Your task to perform on an android device: Open ESPN.com Image 0: 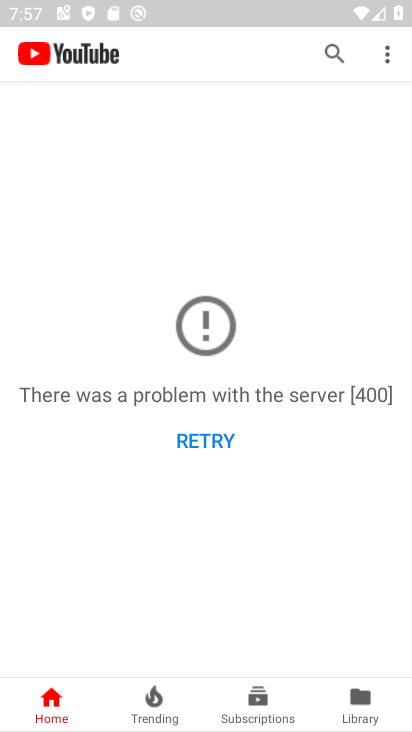
Step 0: press home button
Your task to perform on an android device: Open ESPN.com Image 1: 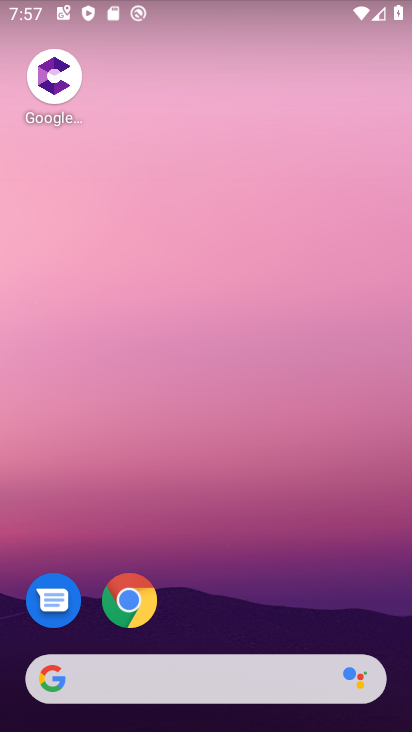
Step 1: click (118, 605)
Your task to perform on an android device: Open ESPN.com Image 2: 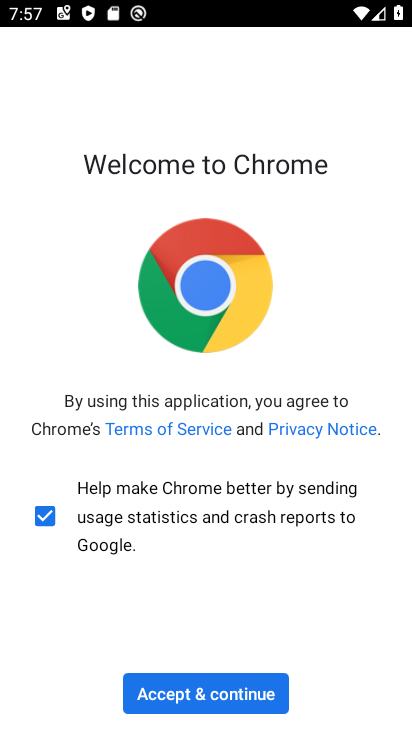
Step 2: click (197, 673)
Your task to perform on an android device: Open ESPN.com Image 3: 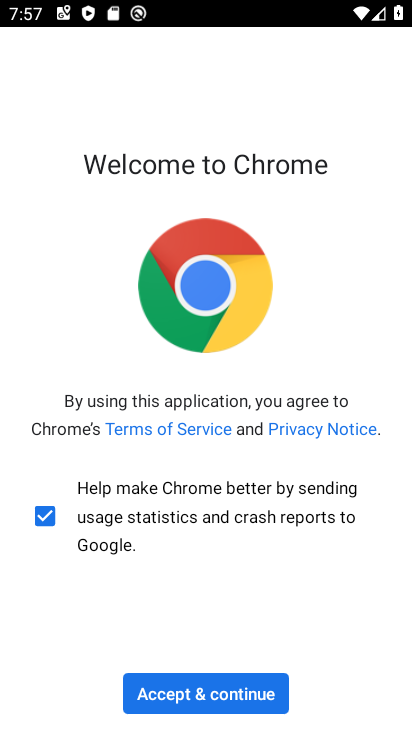
Step 3: click (191, 684)
Your task to perform on an android device: Open ESPN.com Image 4: 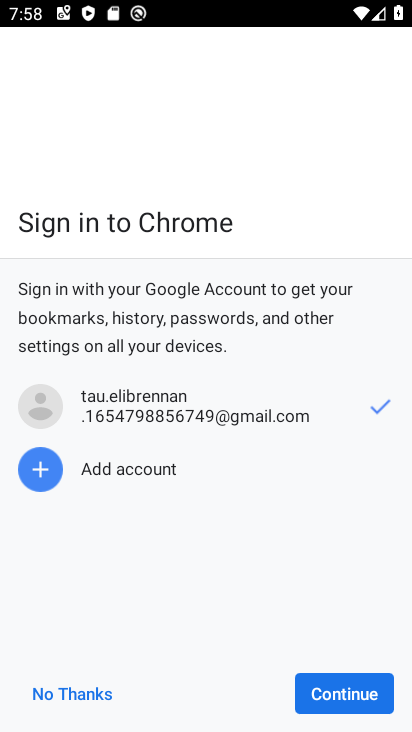
Step 4: click (364, 695)
Your task to perform on an android device: Open ESPN.com Image 5: 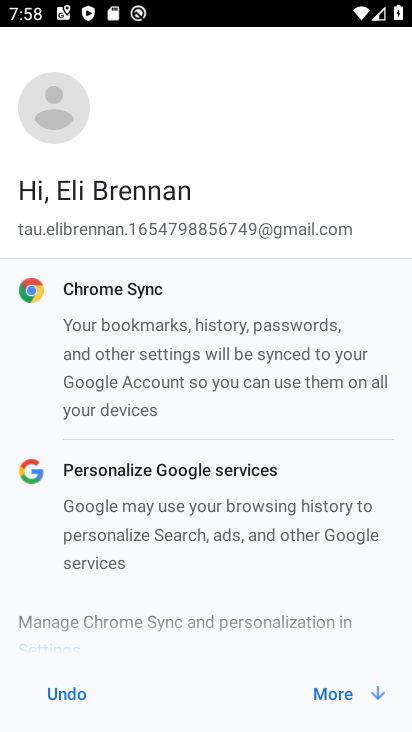
Step 5: click (357, 697)
Your task to perform on an android device: Open ESPN.com Image 6: 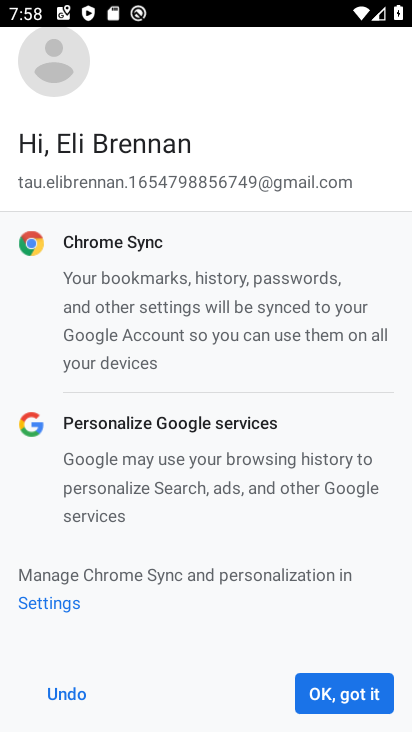
Step 6: click (327, 701)
Your task to perform on an android device: Open ESPN.com Image 7: 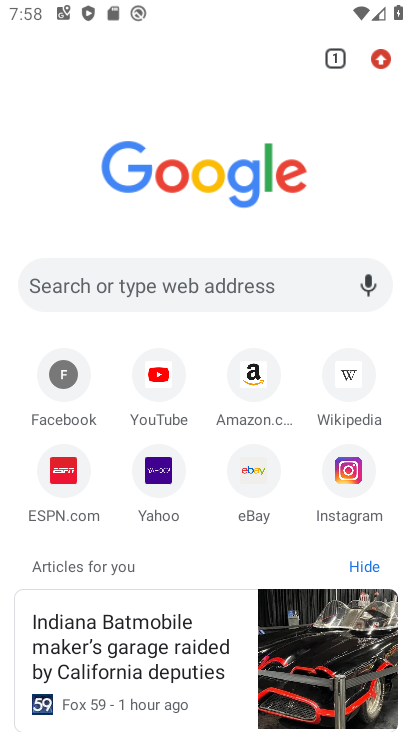
Step 7: click (56, 488)
Your task to perform on an android device: Open ESPN.com Image 8: 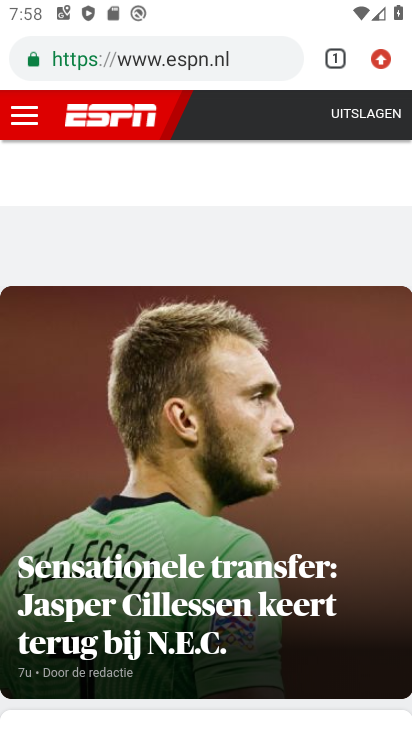
Step 8: task complete